Your task to perform on an android device: Open Google Chrome and click the shortcut for Amazon.com Image 0: 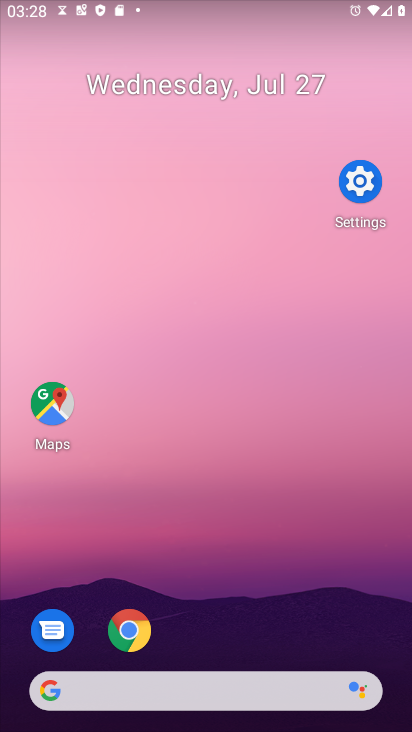
Step 0: press home button
Your task to perform on an android device: Open Google Chrome and click the shortcut for Amazon.com Image 1: 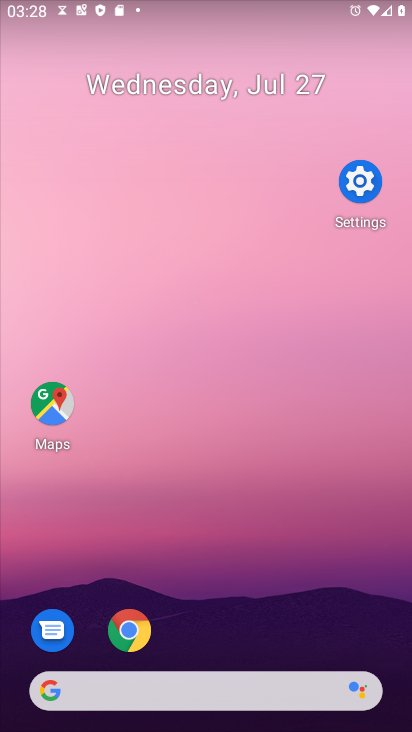
Step 1: drag from (231, 633) to (253, 100)
Your task to perform on an android device: Open Google Chrome and click the shortcut for Amazon.com Image 2: 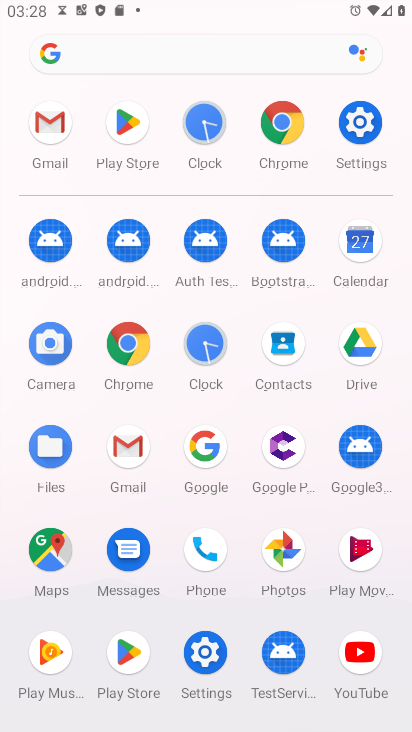
Step 2: click (285, 115)
Your task to perform on an android device: Open Google Chrome and click the shortcut for Amazon.com Image 3: 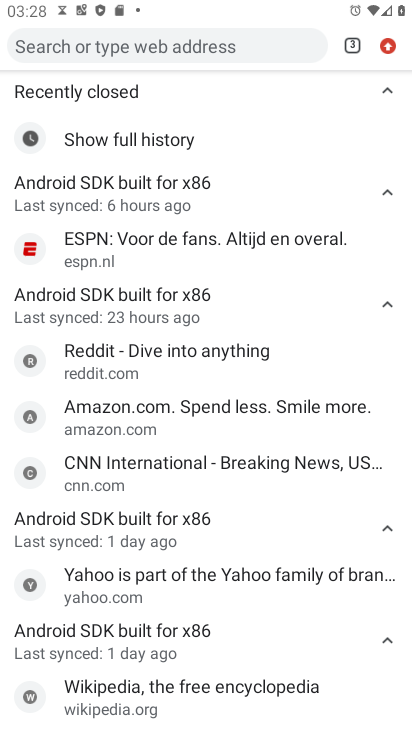
Step 3: press back button
Your task to perform on an android device: Open Google Chrome and click the shortcut for Amazon.com Image 4: 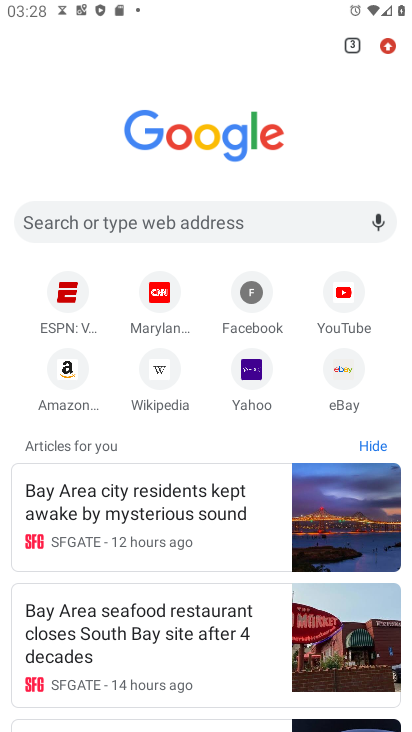
Step 4: click (68, 372)
Your task to perform on an android device: Open Google Chrome and click the shortcut for Amazon.com Image 5: 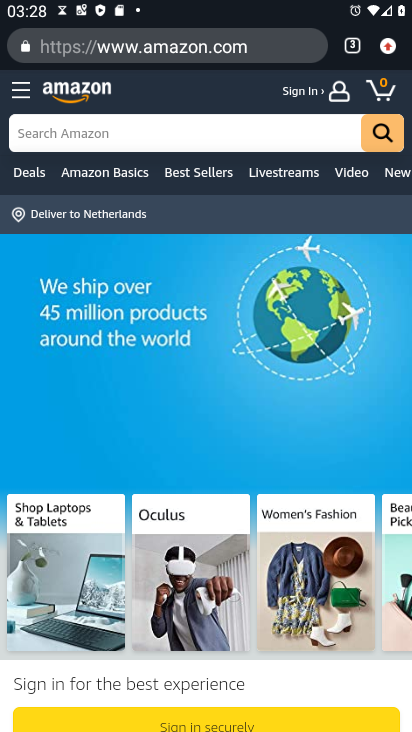
Step 5: task complete